Your task to perform on an android device: Go to Yahoo.com Image 0: 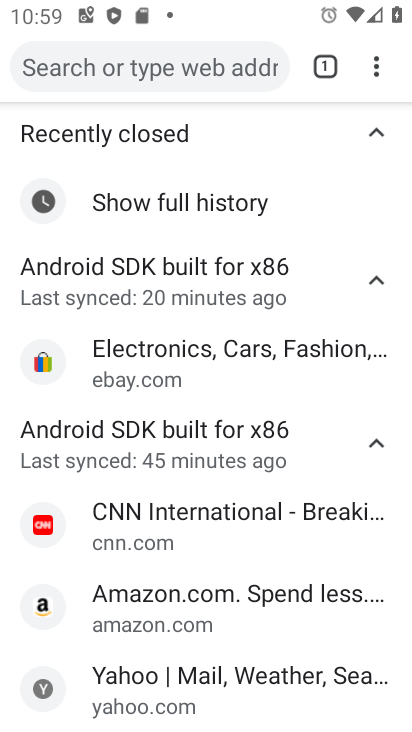
Step 0: press home button
Your task to perform on an android device: Go to Yahoo.com Image 1: 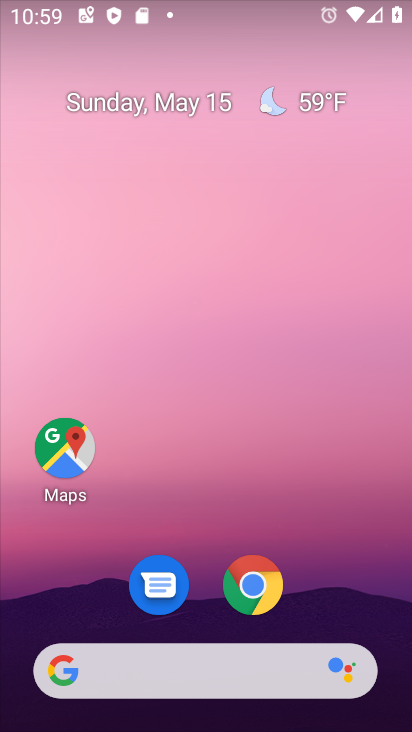
Step 1: click (251, 660)
Your task to perform on an android device: Go to Yahoo.com Image 2: 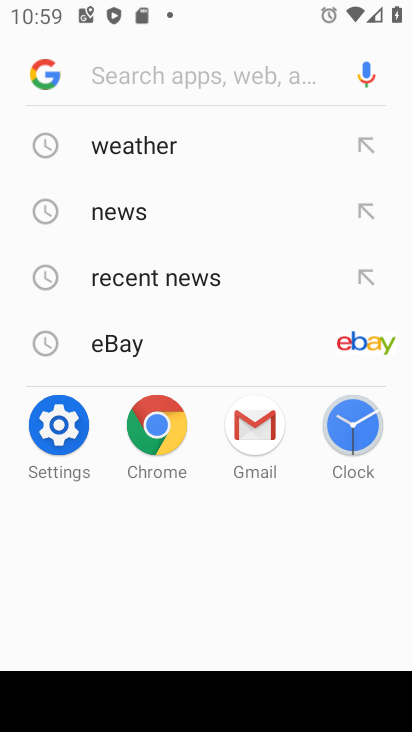
Step 2: type "yahoo.com"
Your task to perform on an android device: Go to Yahoo.com Image 3: 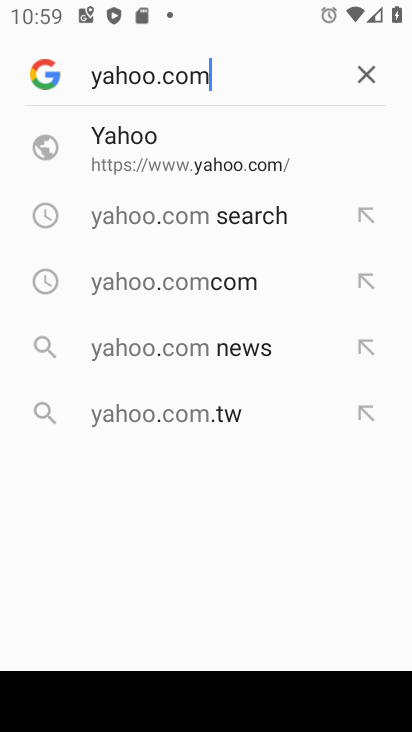
Step 3: click (129, 140)
Your task to perform on an android device: Go to Yahoo.com Image 4: 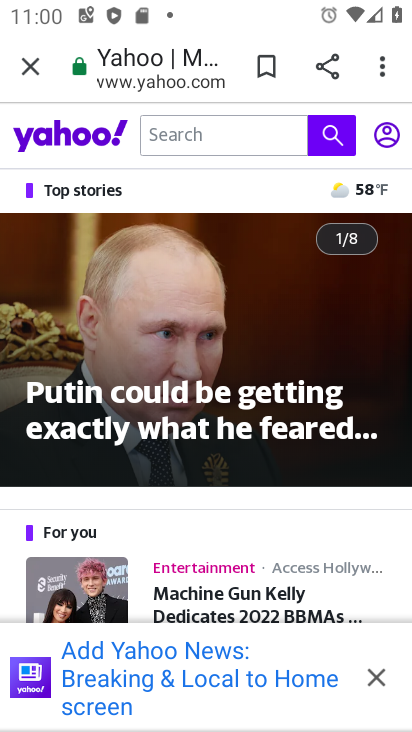
Step 4: task complete